Your task to perform on an android device: Go to Amazon Image 0: 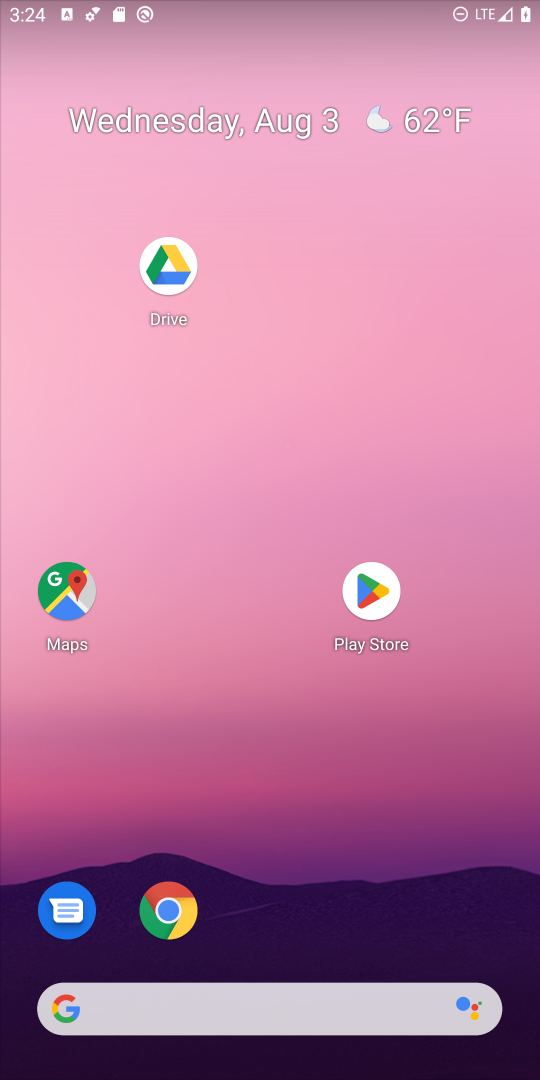
Step 0: drag from (380, 942) to (406, 45)
Your task to perform on an android device: Go to Amazon Image 1: 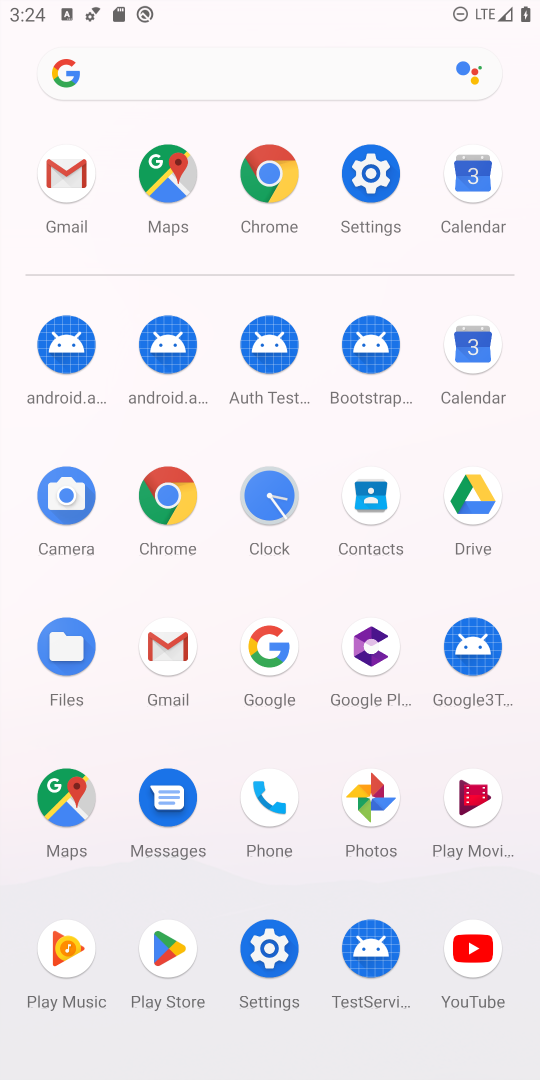
Step 1: click (190, 492)
Your task to perform on an android device: Go to Amazon Image 2: 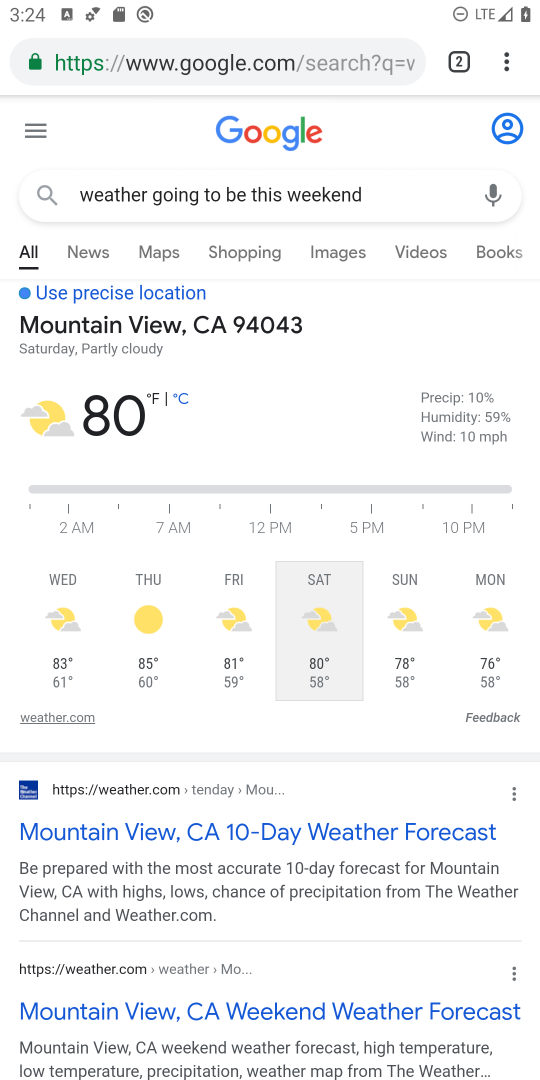
Step 2: click (324, 51)
Your task to perform on an android device: Go to Amazon Image 3: 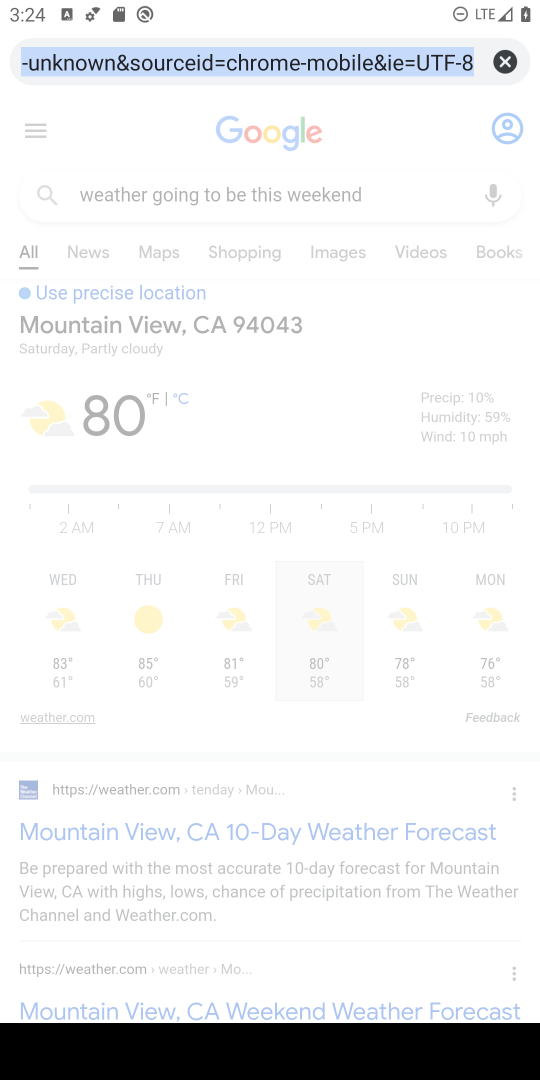
Step 3: type "amazon"
Your task to perform on an android device: Go to Amazon Image 4: 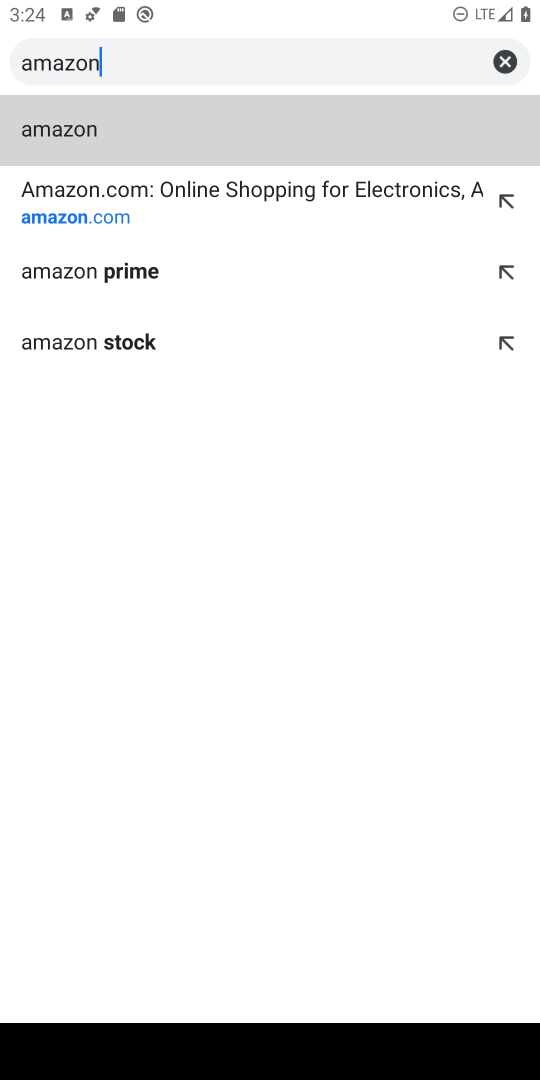
Step 4: click (29, 226)
Your task to perform on an android device: Go to Amazon Image 5: 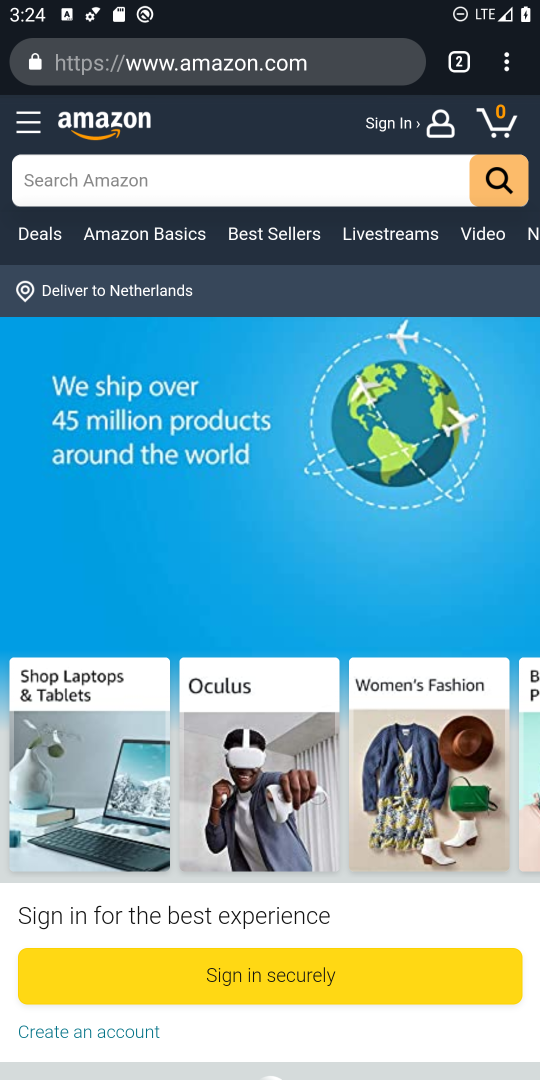
Step 5: task complete